Your task to perform on an android device: turn notification dots off Image 0: 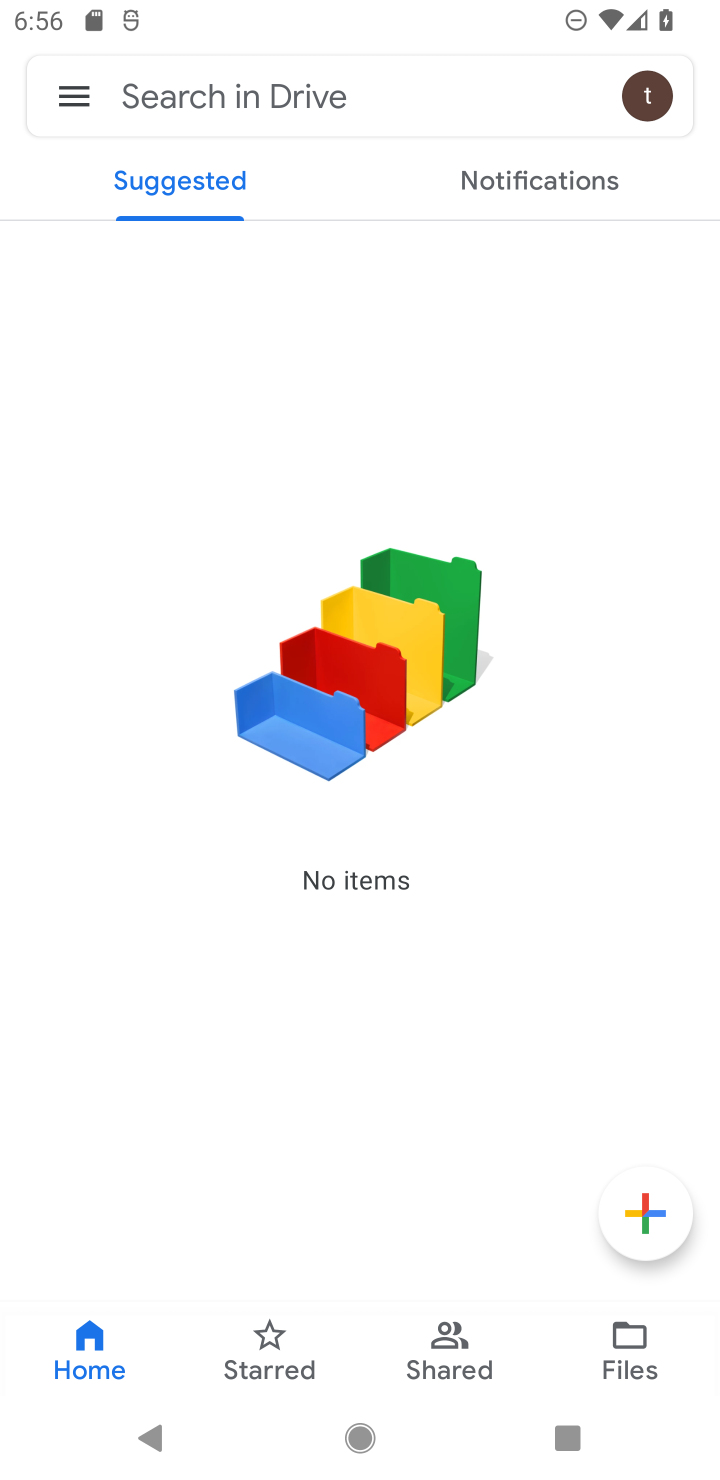
Step 0: press home button
Your task to perform on an android device: turn notification dots off Image 1: 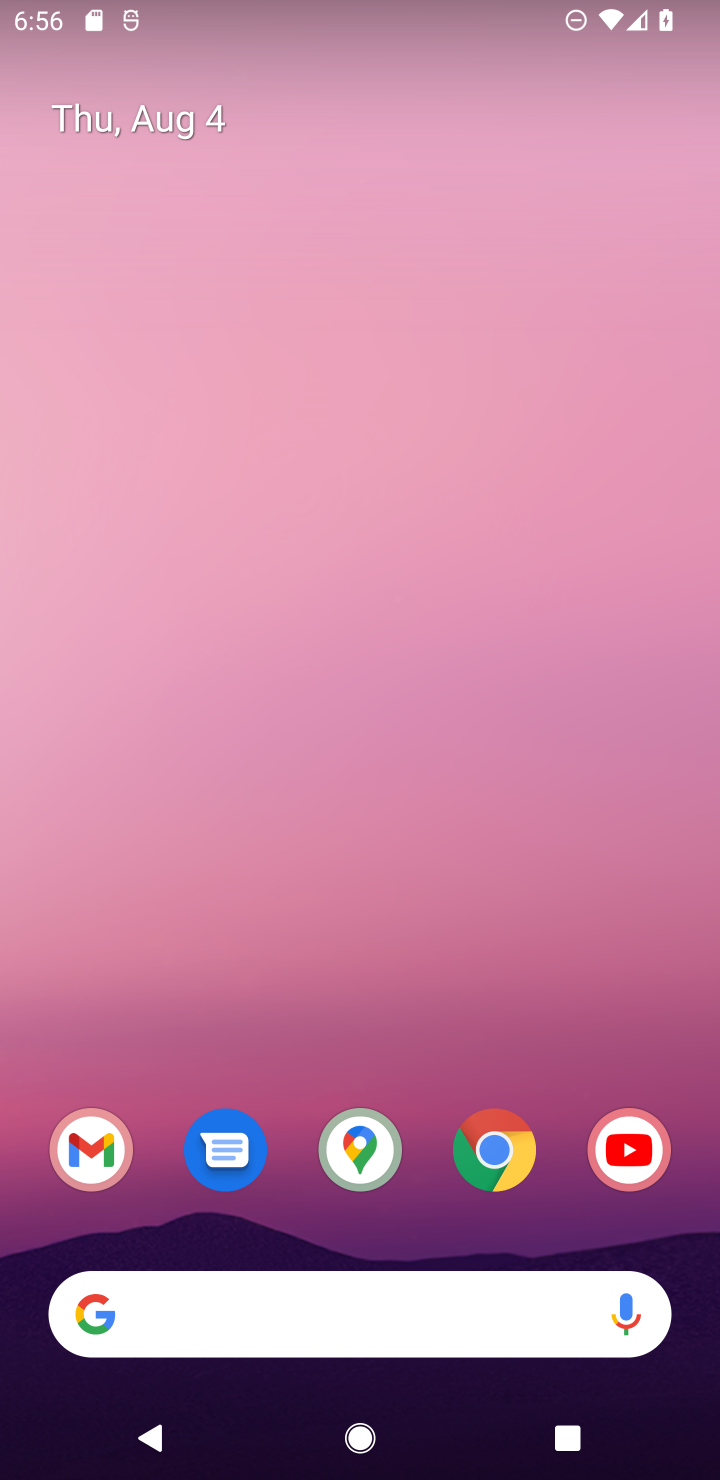
Step 1: drag from (452, 1097) to (536, 411)
Your task to perform on an android device: turn notification dots off Image 2: 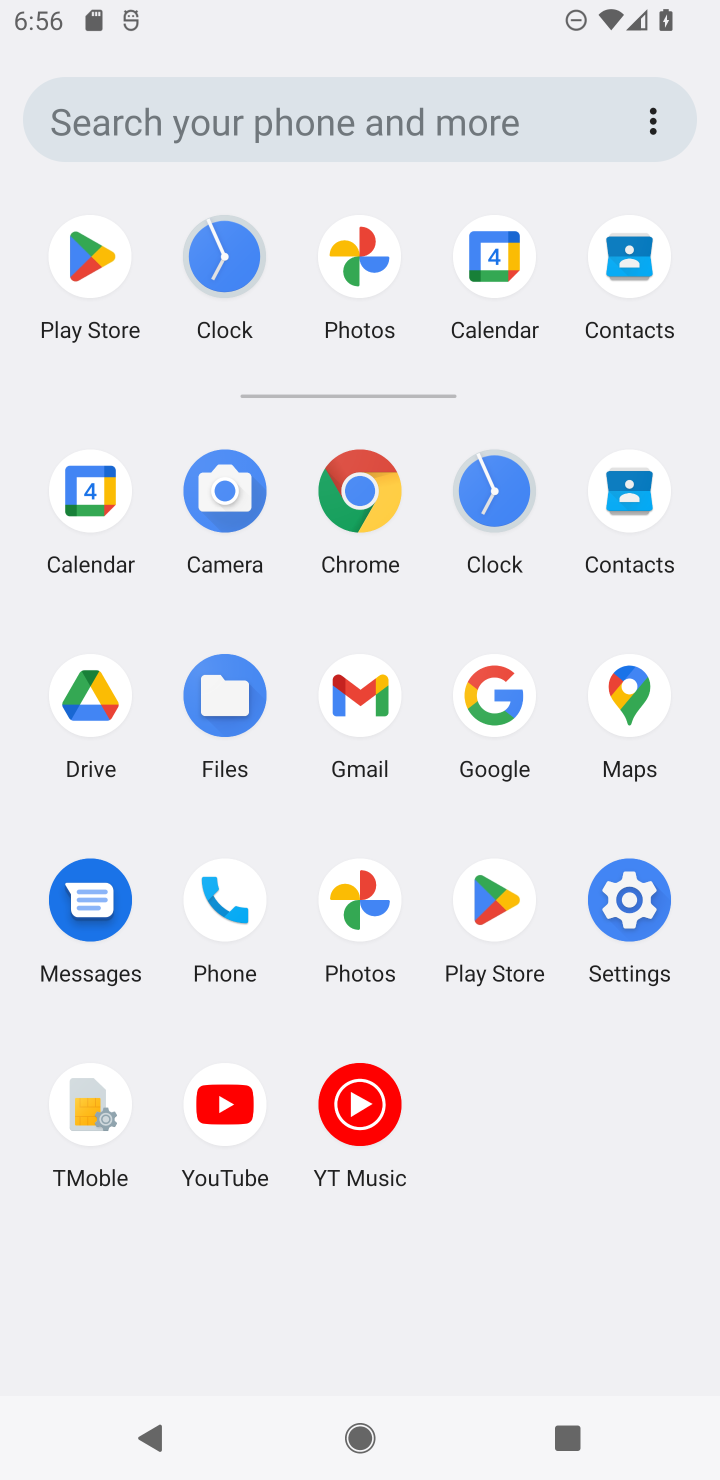
Step 2: click (607, 914)
Your task to perform on an android device: turn notification dots off Image 3: 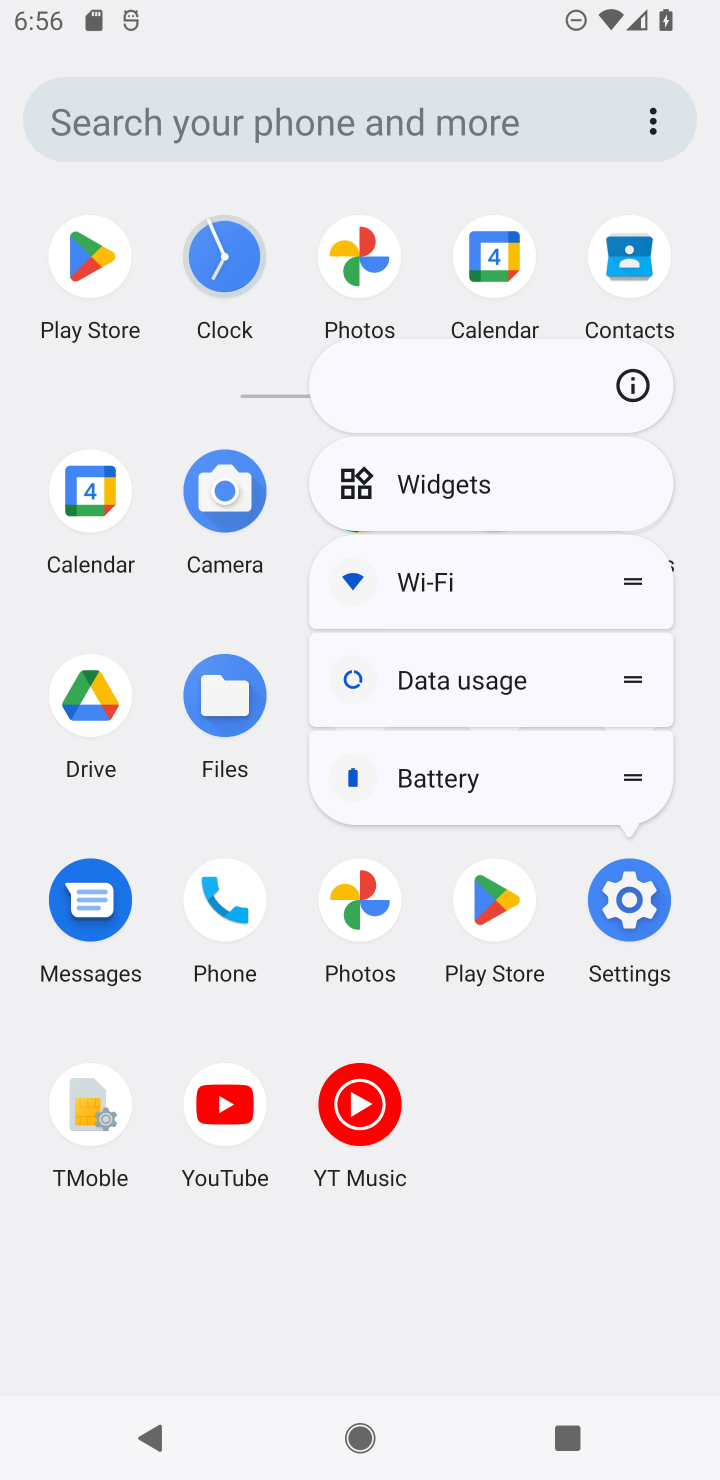
Step 3: click (621, 897)
Your task to perform on an android device: turn notification dots off Image 4: 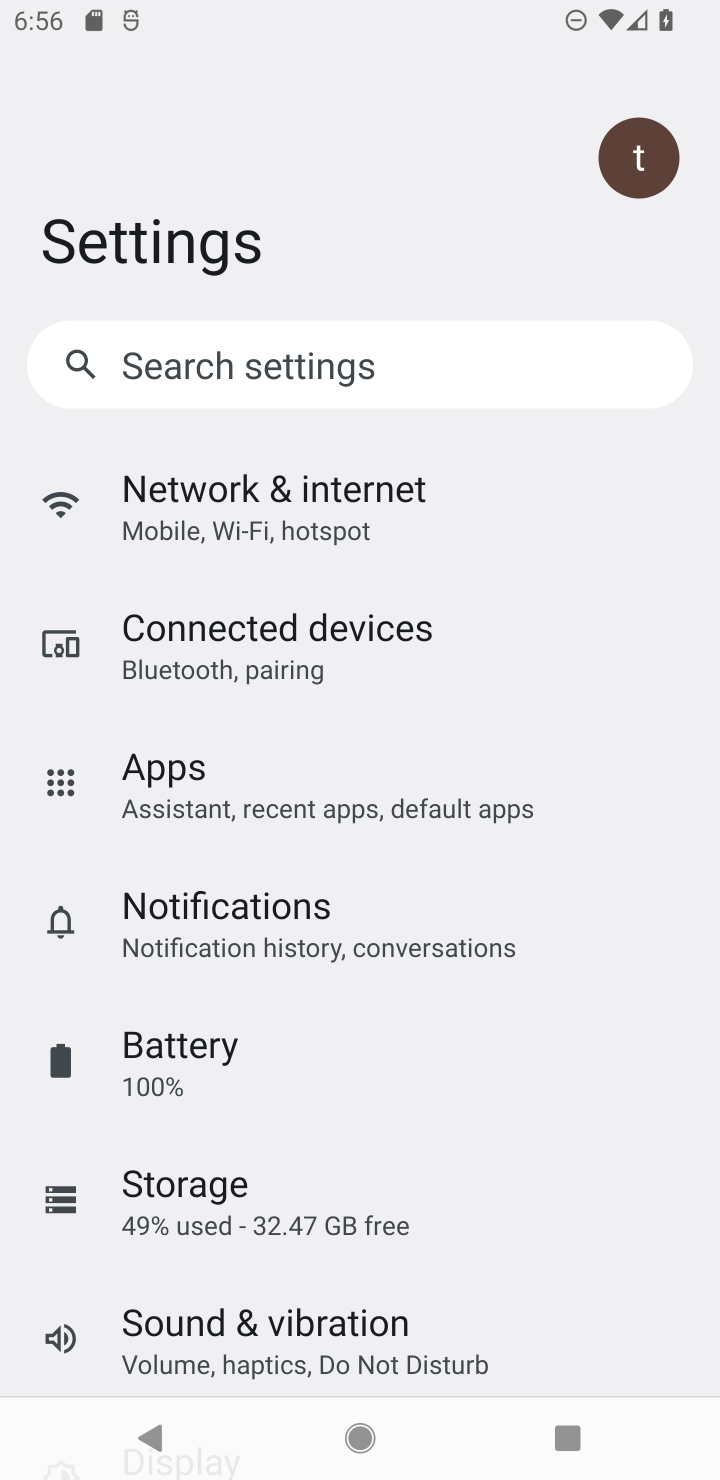
Step 4: click (274, 906)
Your task to perform on an android device: turn notification dots off Image 5: 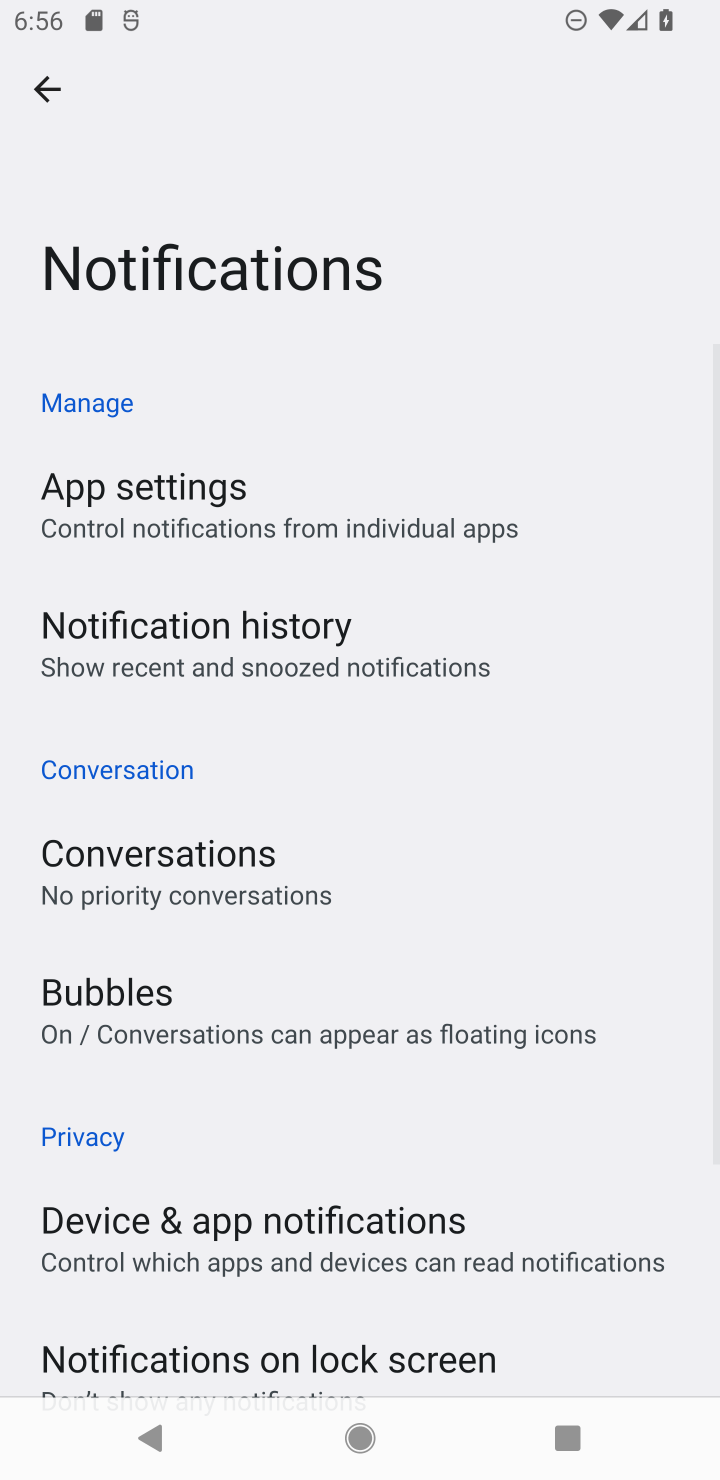
Step 5: drag from (369, 1158) to (495, 164)
Your task to perform on an android device: turn notification dots off Image 6: 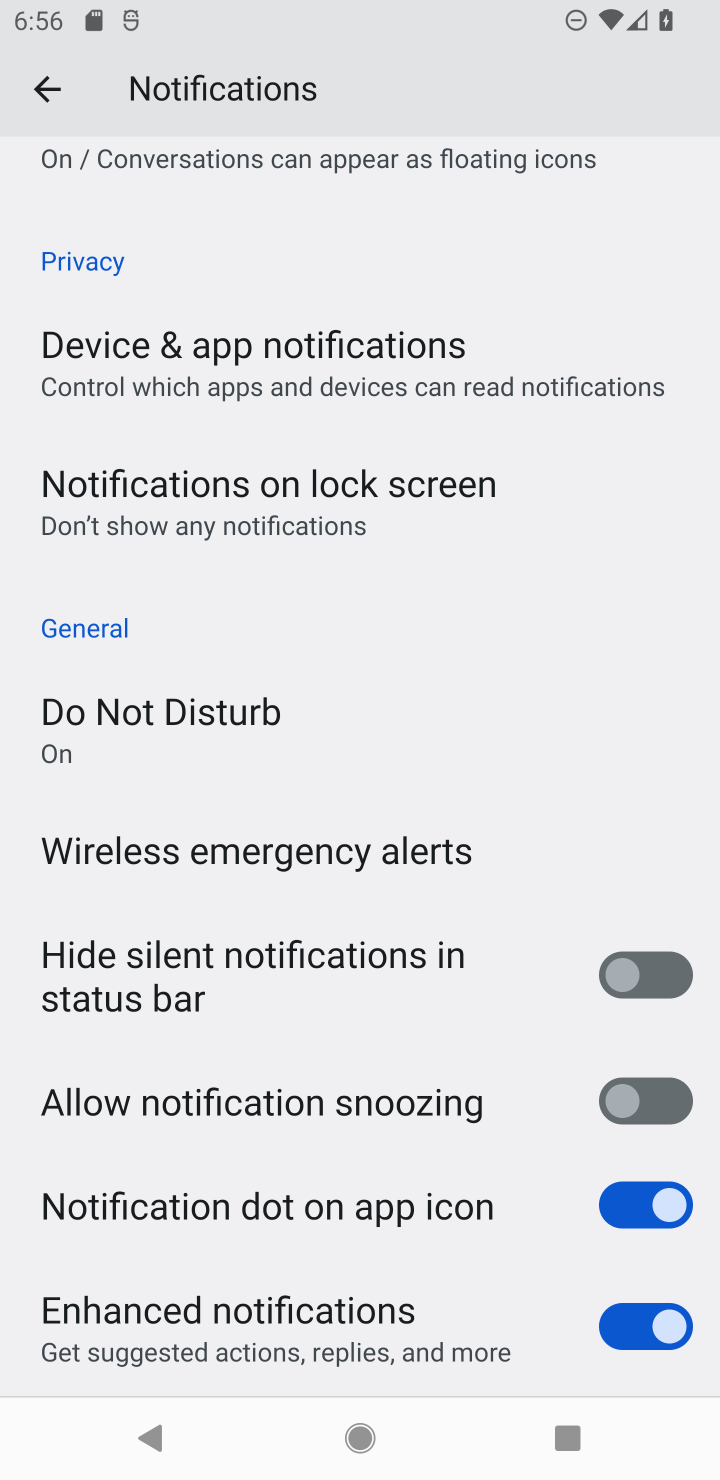
Step 6: drag from (230, 1076) to (263, 479)
Your task to perform on an android device: turn notification dots off Image 7: 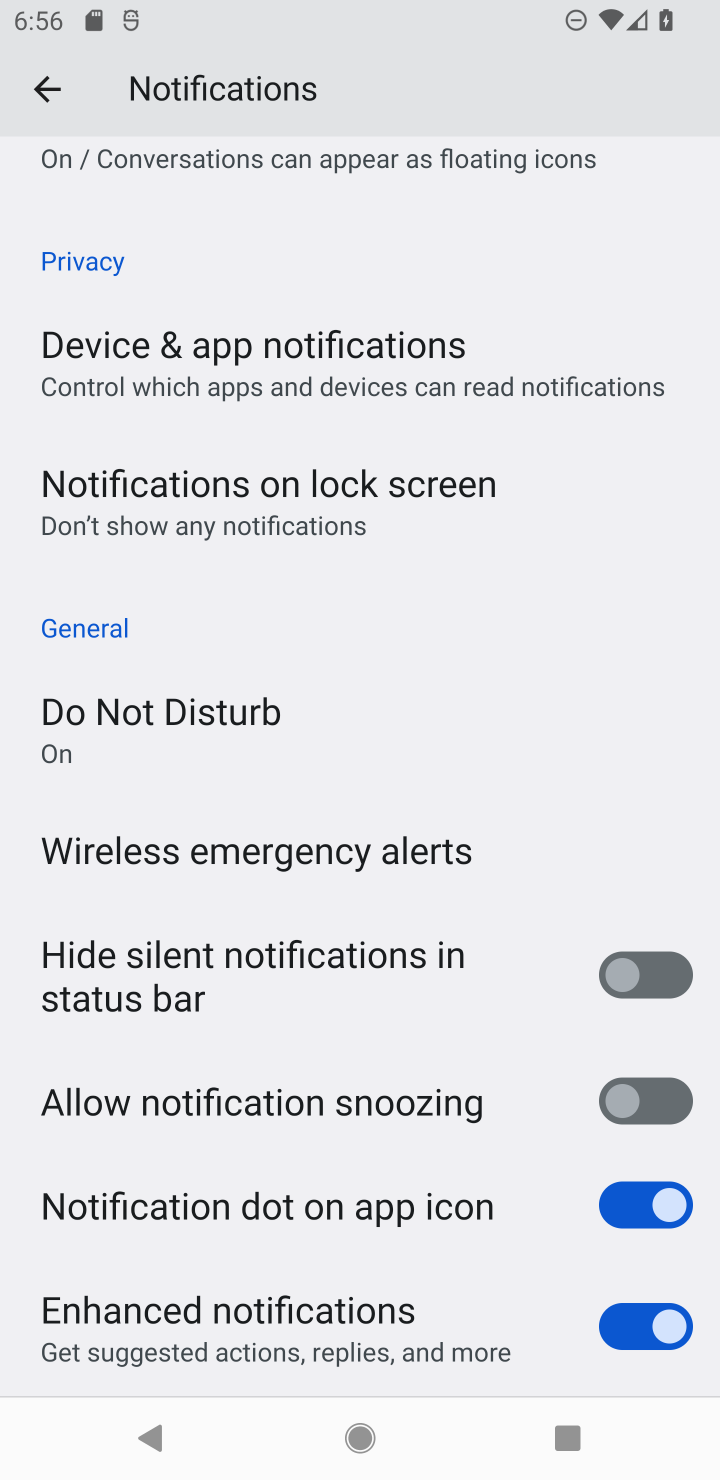
Step 7: click (260, 378)
Your task to perform on an android device: turn notification dots off Image 8: 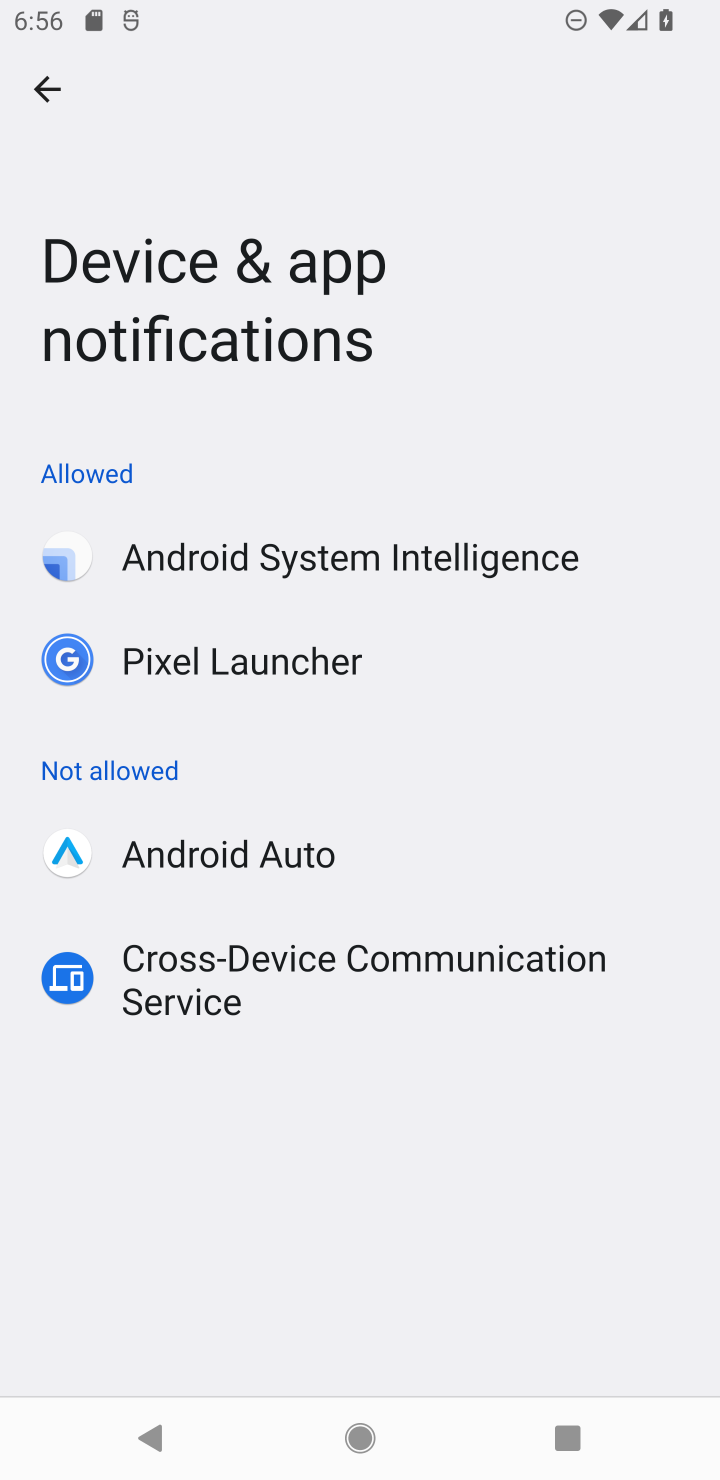
Step 8: press back button
Your task to perform on an android device: turn notification dots off Image 9: 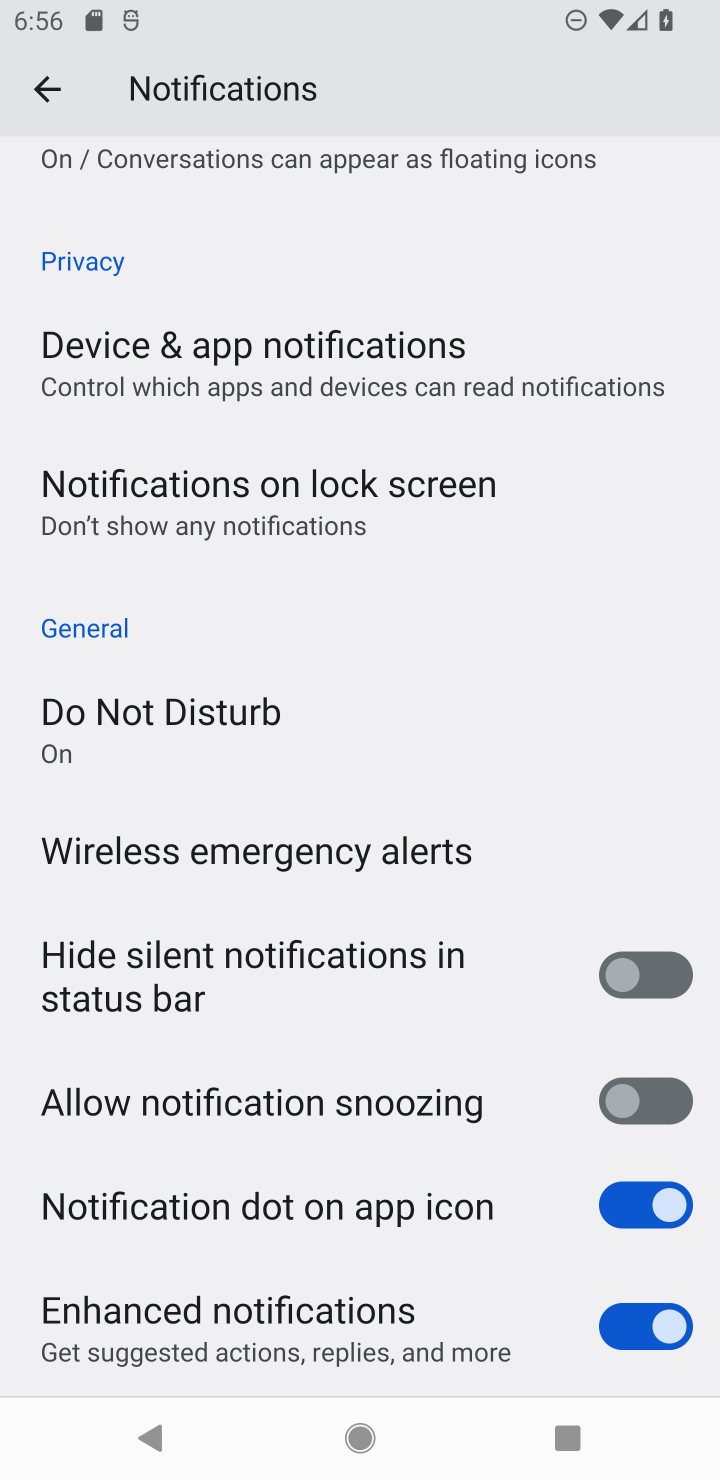
Step 9: drag from (396, 189) to (369, 1290)
Your task to perform on an android device: turn notification dots off Image 10: 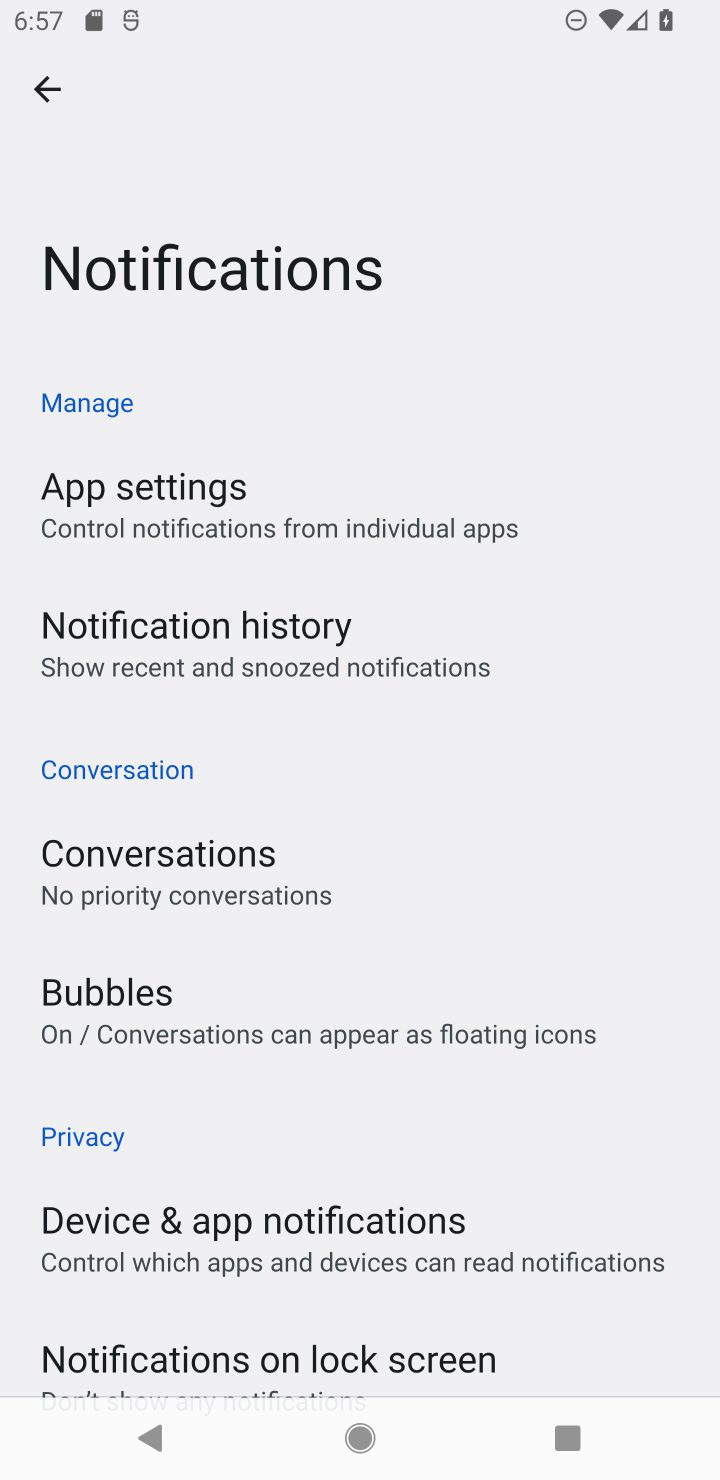
Step 10: drag from (357, 1293) to (412, 393)
Your task to perform on an android device: turn notification dots off Image 11: 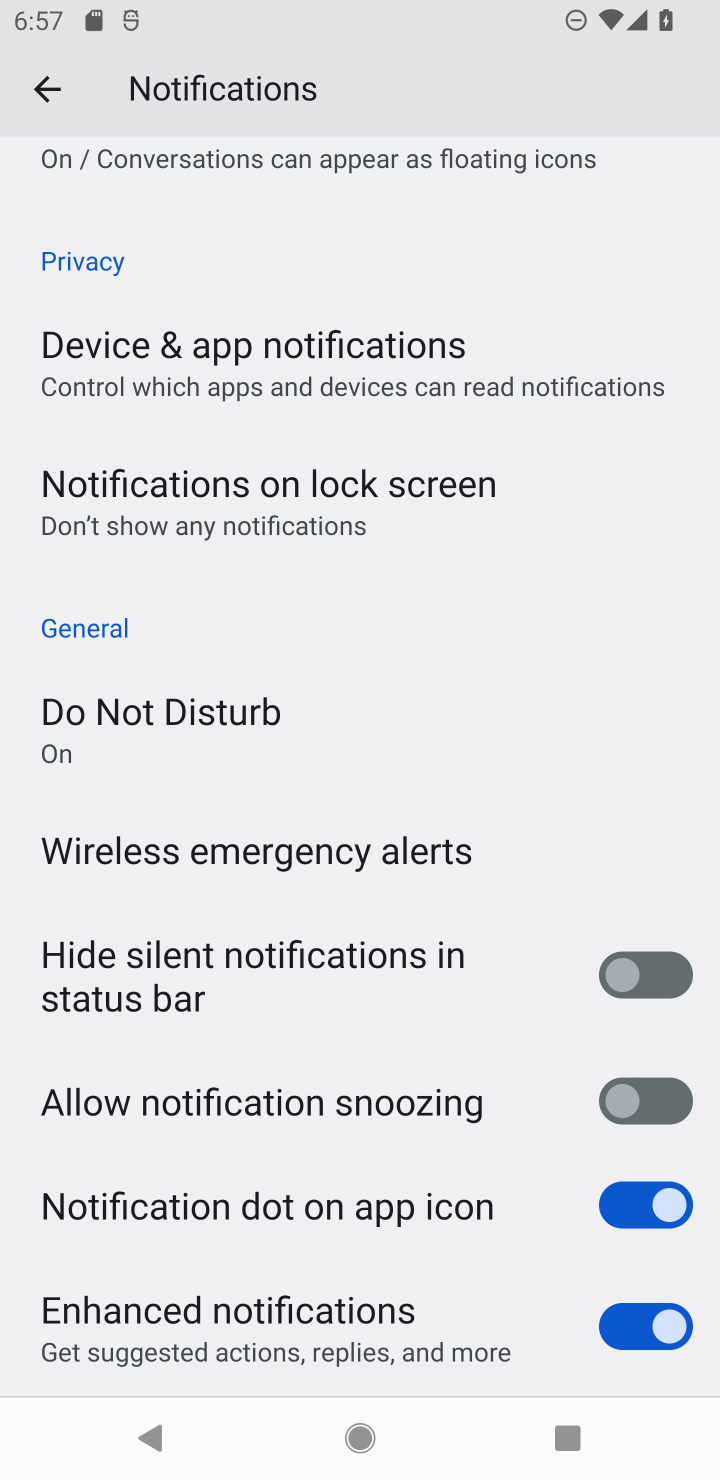
Step 11: click (609, 1199)
Your task to perform on an android device: turn notification dots off Image 12: 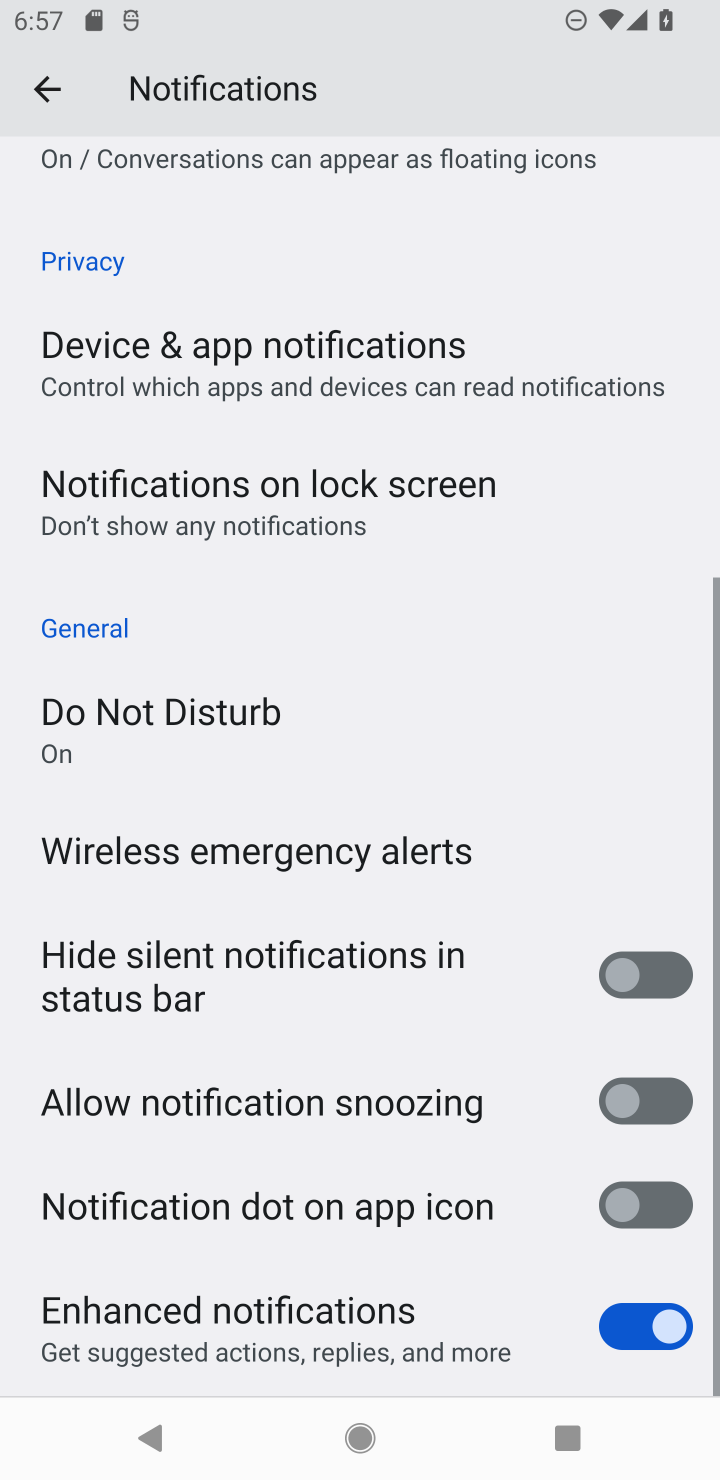
Step 12: task complete